Your task to perform on an android device: turn off location Image 0: 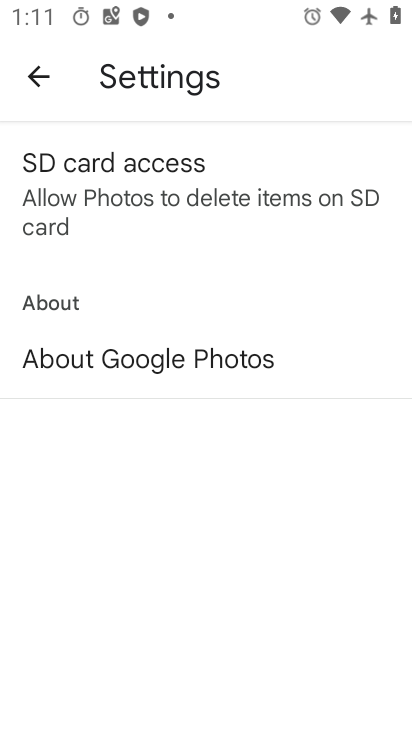
Step 0: press home button
Your task to perform on an android device: turn off location Image 1: 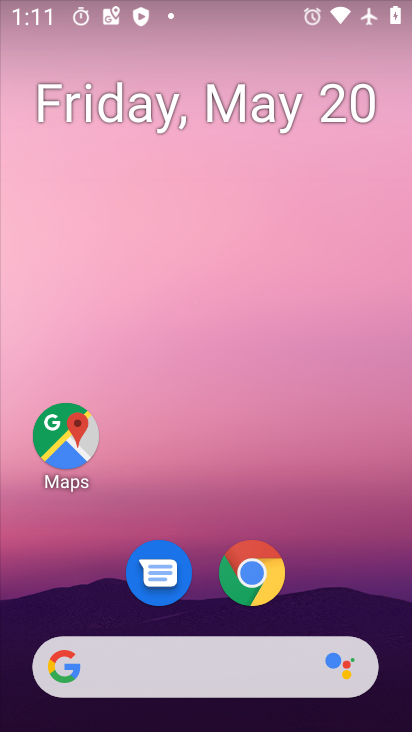
Step 1: drag from (356, 597) to (354, 126)
Your task to perform on an android device: turn off location Image 2: 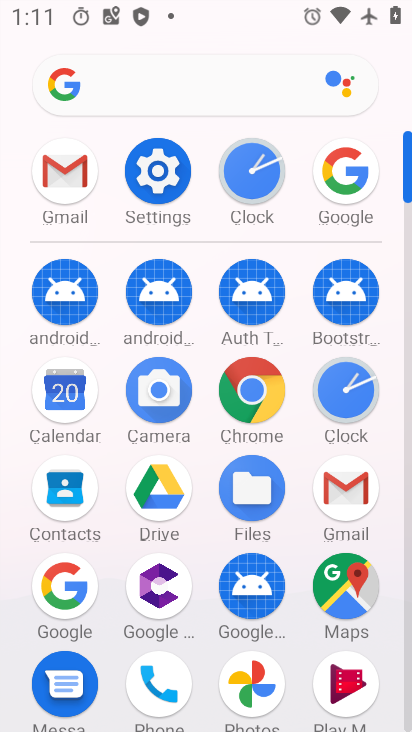
Step 2: click (154, 167)
Your task to perform on an android device: turn off location Image 3: 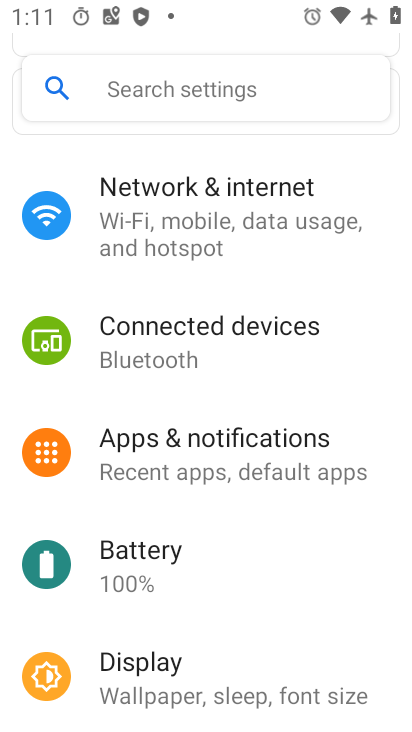
Step 3: drag from (255, 546) to (254, 94)
Your task to perform on an android device: turn off location Image 4: 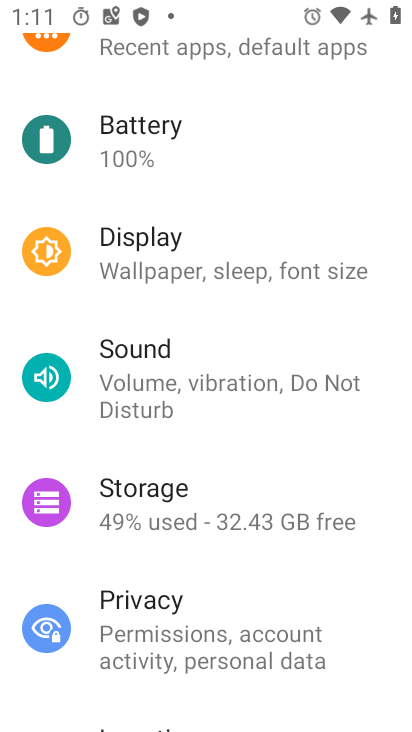
Step 4: drag from (200, 670) to (265, 201)
Your task to perform on an android device: turn off location Image 5: 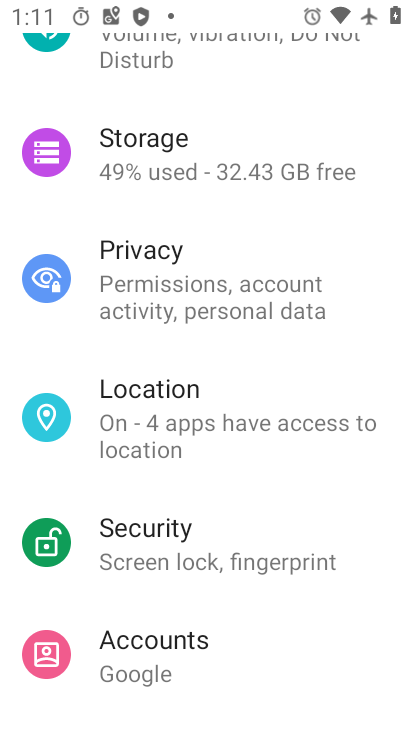
Step 5: click (190, 416)
Your task to perform on an android device: turn off location Image 6: 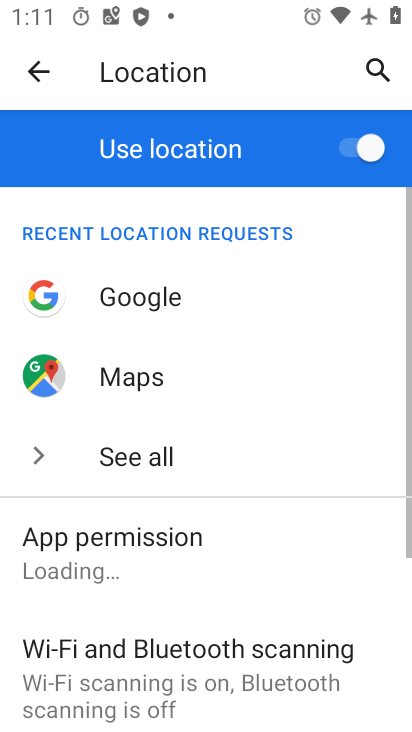
Step 6: click (363, 134)
Your task to perform on an android device: turn off location Image 7: 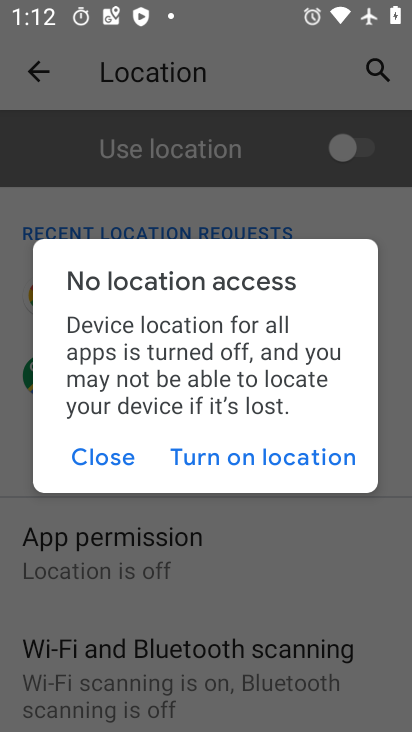
Step 7: click (104, 474)
Your task to perform on an android device: turn off location Image 8: 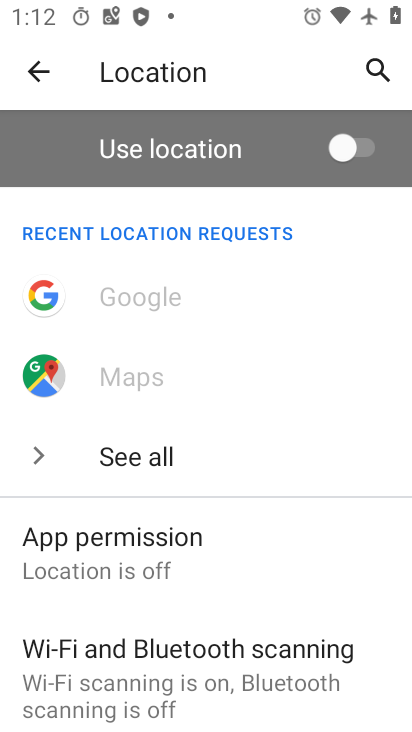
Step 8: task complete